Your task to perform on an android device: turn off improve location accuracy Image 0: 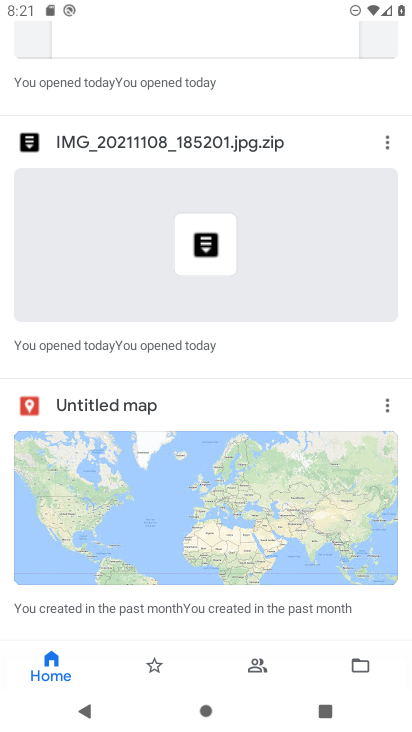
Step 0: press home button
Your task to perform on an android device: turn off improve location accuracy Image 1: 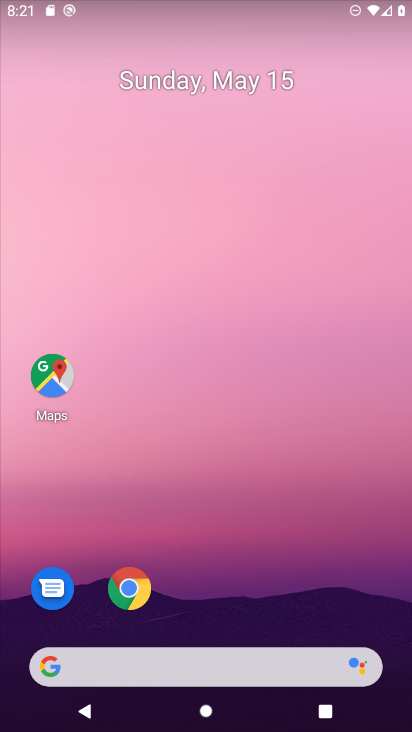
Step 1: drag from (210, 627) to (240, 31)
Your task to perform on an android device: turn off improve location accuracy Image 2: 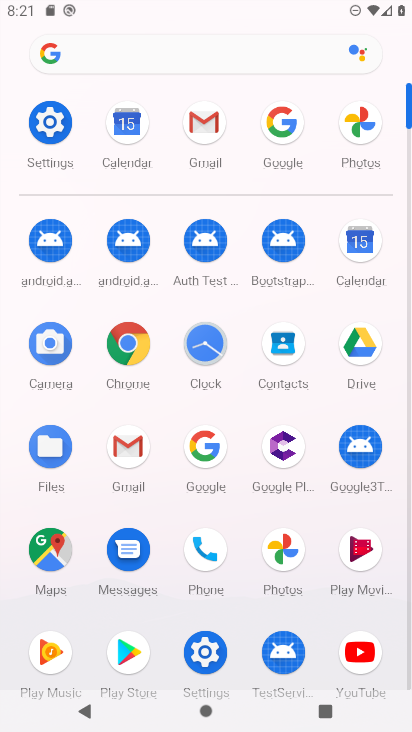
Step 2: click (46, 114)
Your task to perform on an android device: turn off improve location accuracy Image 3: 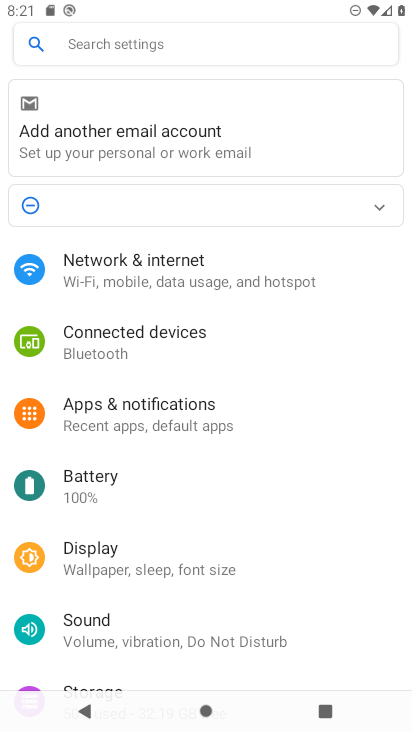
Step 3: drag from (225, 636) to (242, 153)
Your task to perform on an android device: turn off improve location accuracy Image 4: 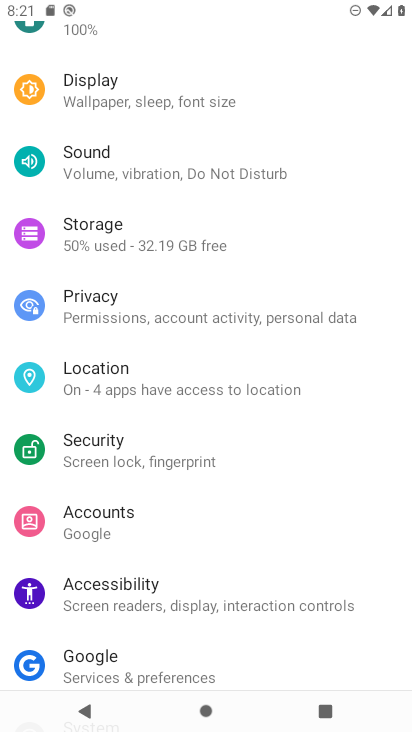
Step 4: click (149, 375)
Your task to perform on an android device: turn off improve location accuracy Image 5: 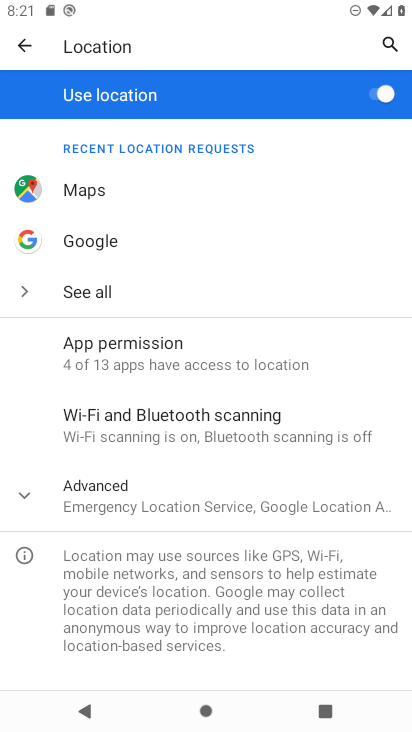
Step 5: click (21, 492)
Your task to perform on an android device: turn off improve location accuracy Image 6: 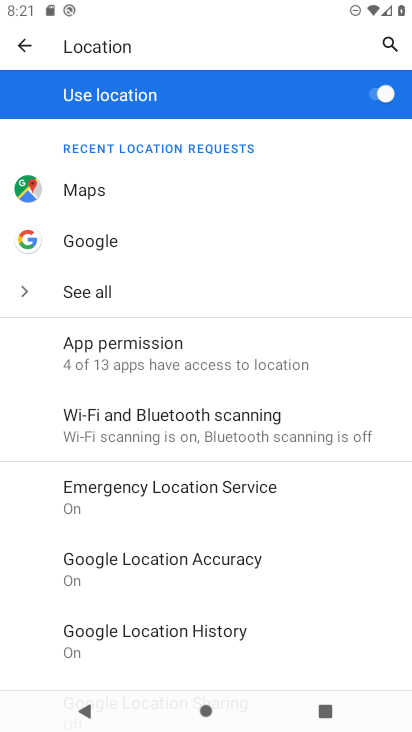
Step 6: click (231, 567)
Your task to perform on an android device: turn off improve location accuracy Image 7: 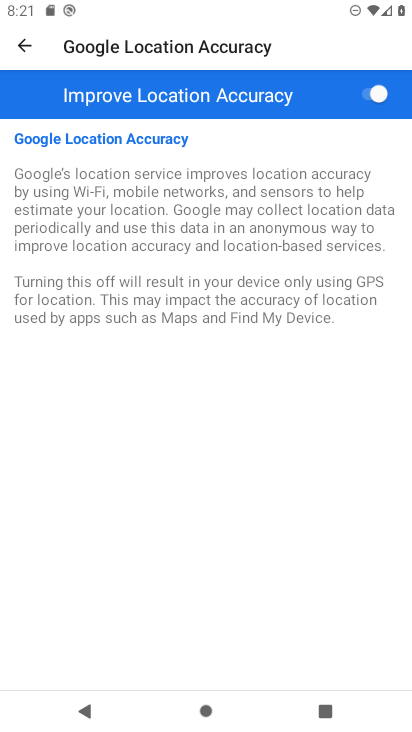
Step 7: click (368, 89)
Your task to perform on an android device: turn off improve location accuracy Image 8: 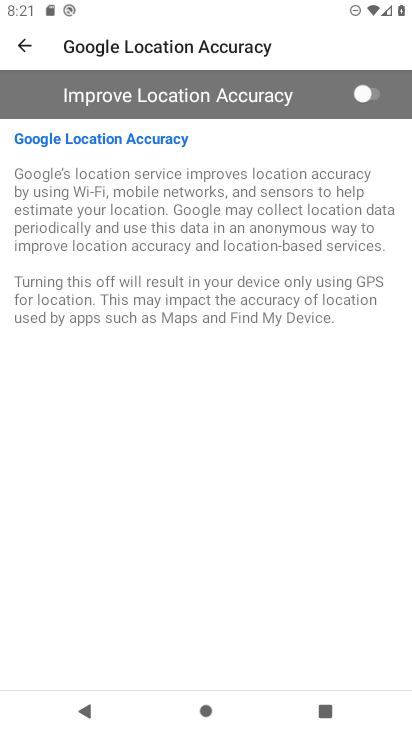
Step 8: task complete